Your task to perform on an android device: open app "LiveIn - Share Your Moment" (install if not already installed) Image 0: 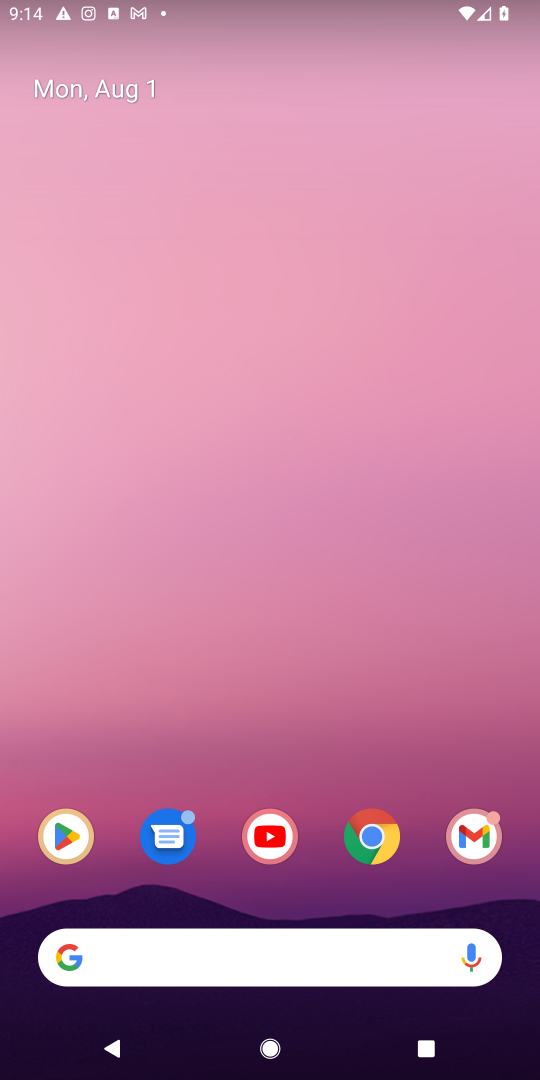
Step 0: click (50, 831)
Your task to perform on an android device: open app "LiveIn - Share Your Moment" (install if not already installed) Image 1: 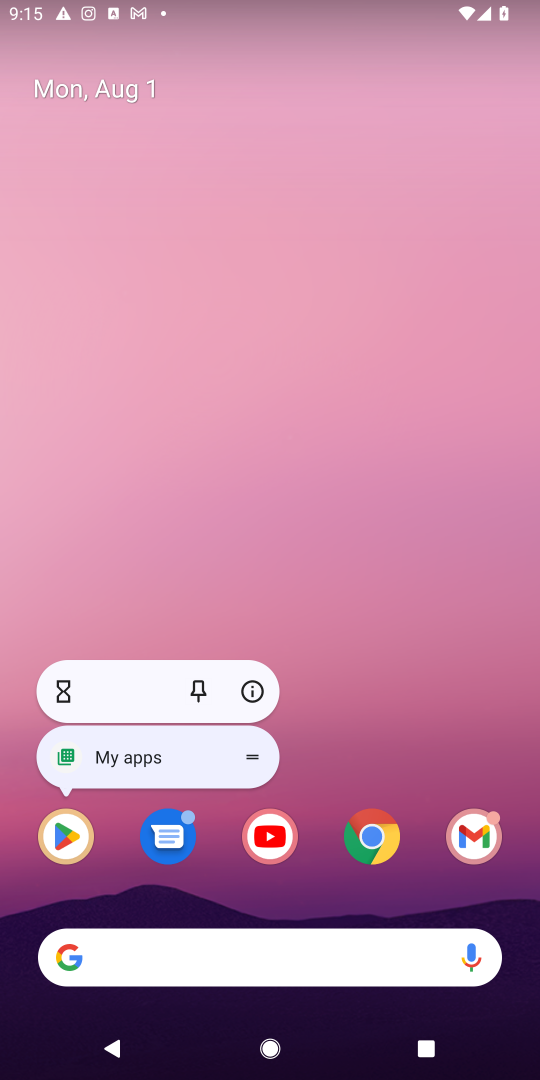
Step 1: click (64, 835)
Your task to perform on an android device: open app "LiveIn - Share Your Moment" (install if not already installed) Image 2: 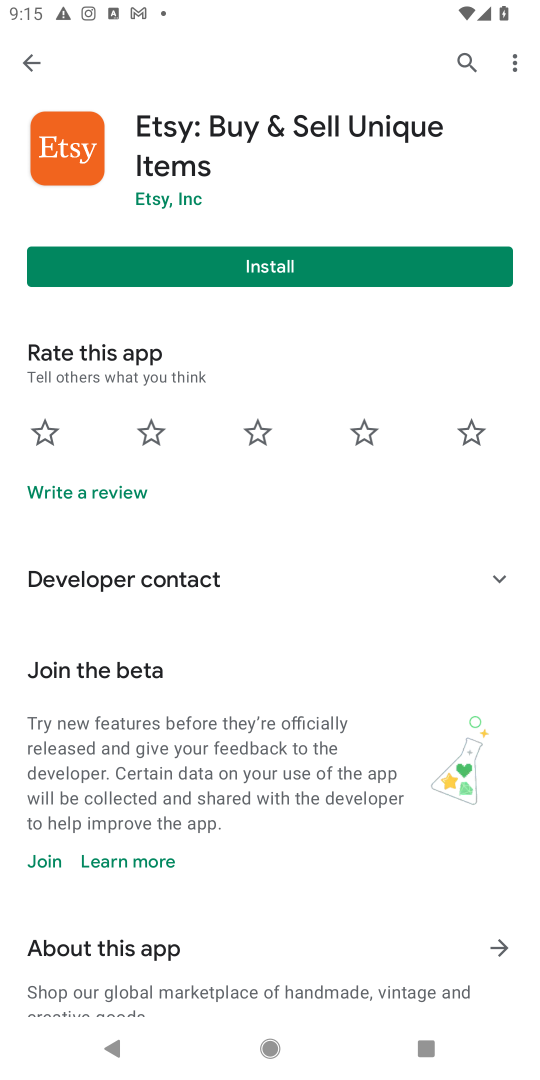
Step 2: click (465, 58)
Your task to perform on an android device: open app "LiveIn - Share Your Moment" (install if not already installed) Image 3: 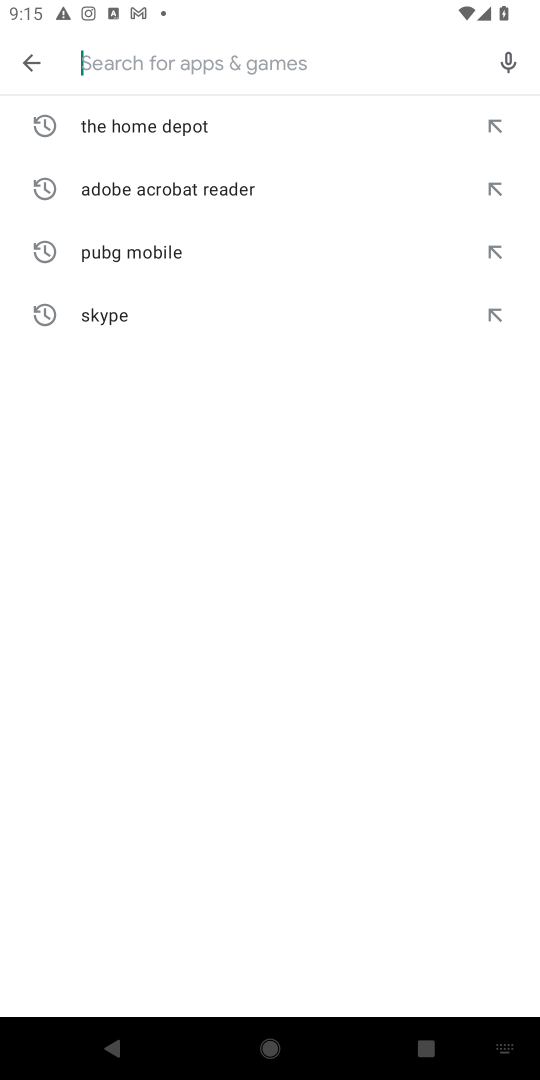
Step 3: type "LiveIn - Share Your Moment"
Your task to perform on an android device: open app "LiveIn - Share Your Moment" (install if not already installed) Image 4: 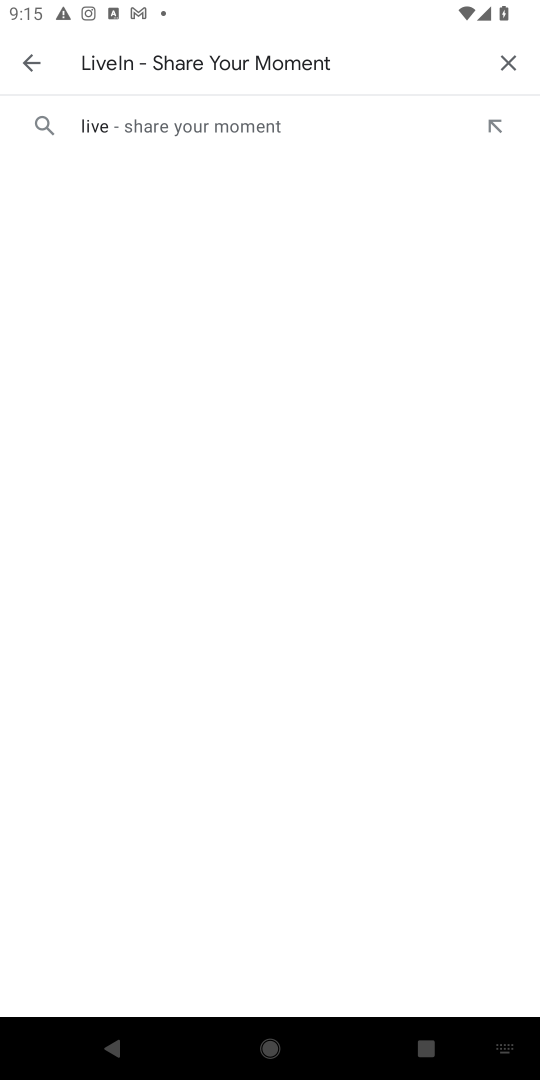
Step 4: click (206, 125)
Your task to perform on an android device: open app "LiveIn - Share Your Moment" (install if not already installed) Image 5: 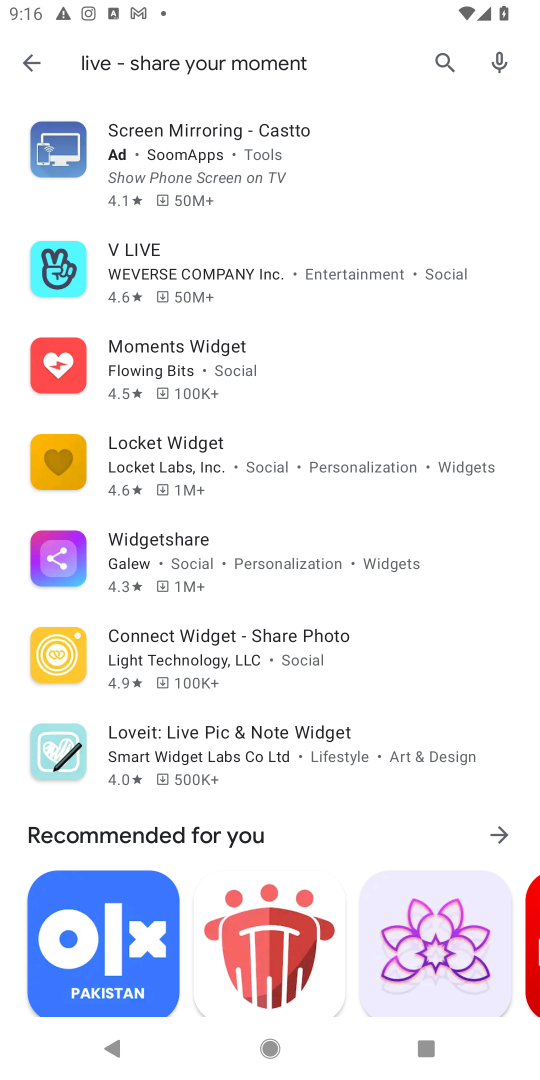
Step 5: task complete